Your task to perform on an android device: Open my contact list Image 0: 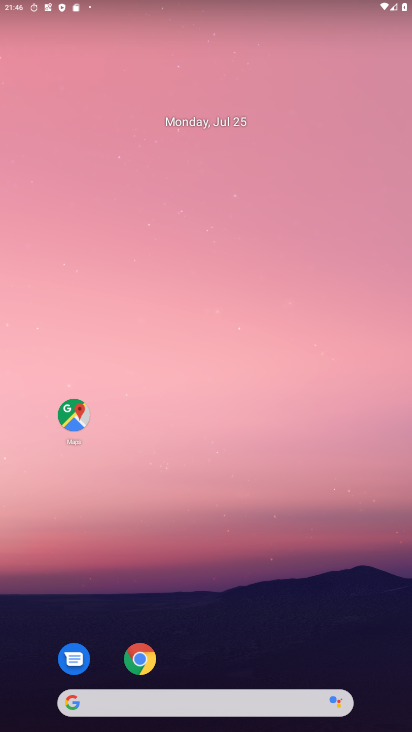
Step 0: drag from (236, 662) to (236, 199)
Your task to perform on an android device: Open my contact list Image 1: 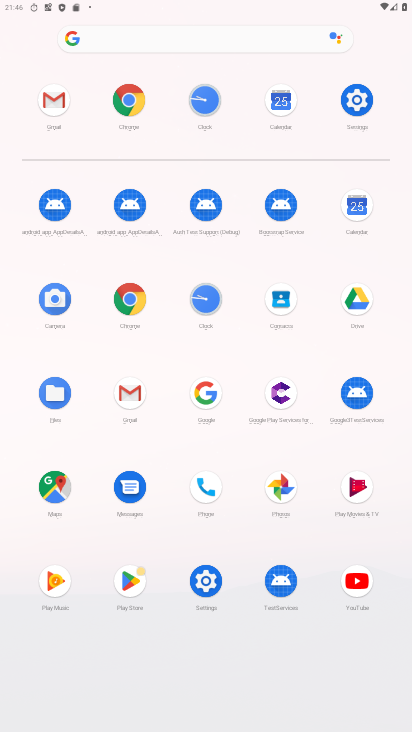
Step 1: click (291, 304)
Your task to perform on an android device: Open my contact list Image 2: 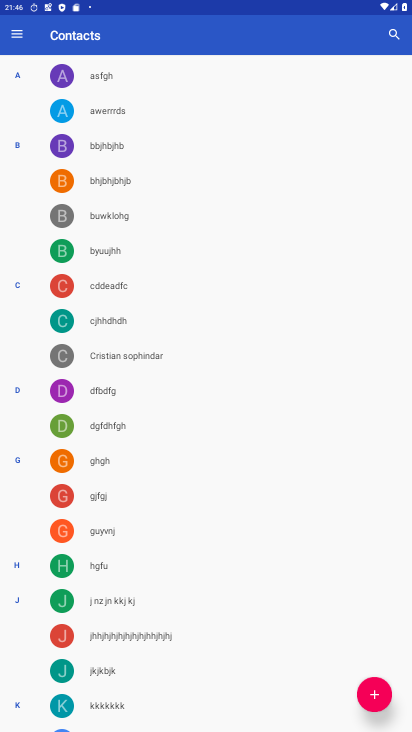
Step 2: task complete